Your task to perform on an android device: Go to calendar. Show me events next week Image 0: 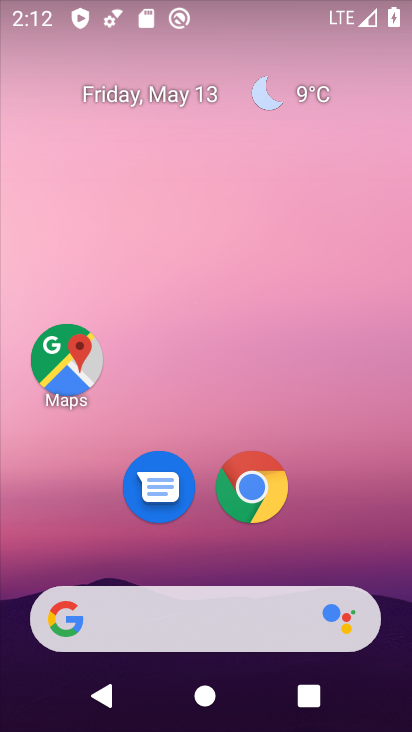
Step 0: drag from (197, 538) to (207, 177)
Your task to perform on an android device: Go to calendar. Show me events next week Image 1: 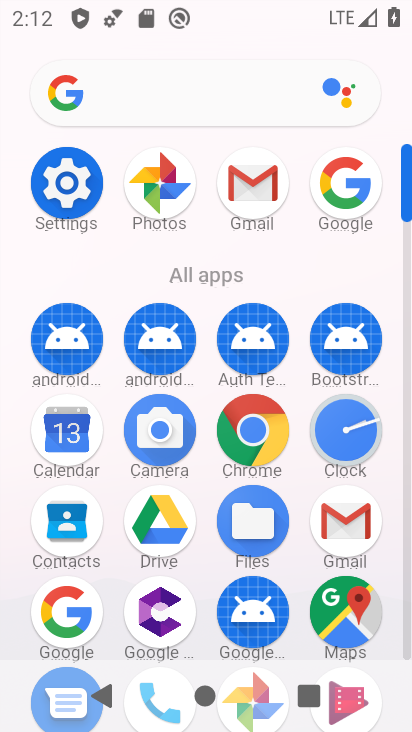
Step 1: click (65, 438)
Your task to perform on an android device: Go to calendar. Show me events next week Image 2: 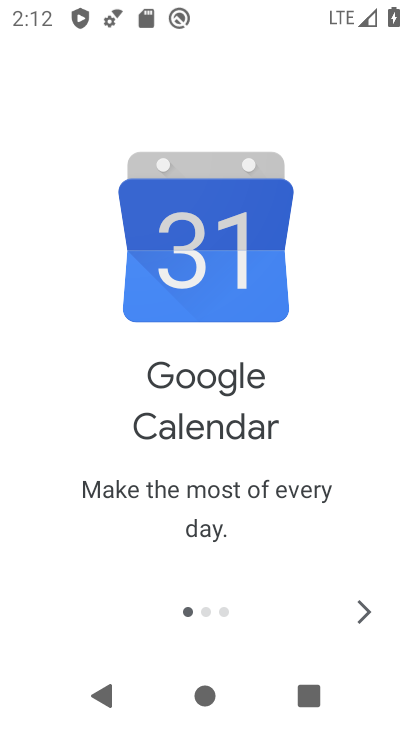
Step 2: click (347, 606)
Your task to perform on an android device: Go to calendar. Show me events next week Image 3: 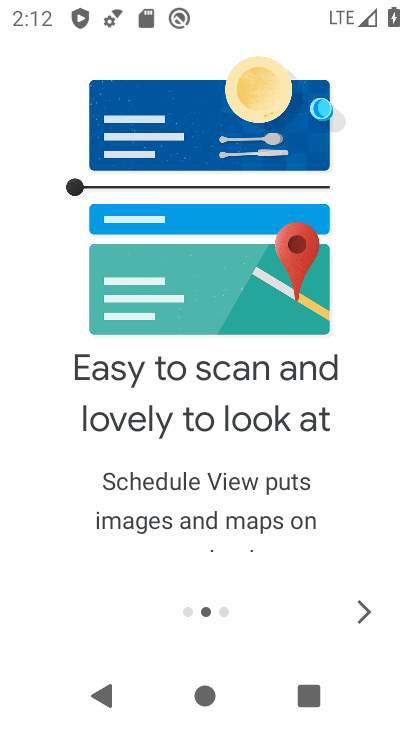
Step 3: click (347, 606)
Your task to perform on an android device: Go to calendar. Show me events next week Image 4: 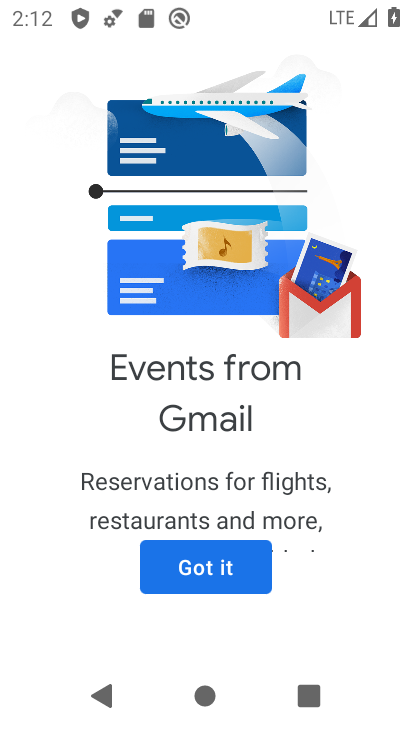
Step 4: click (204, 569)
Your task to perform on an android device: Go to calendar. Show me events next week Image 5: 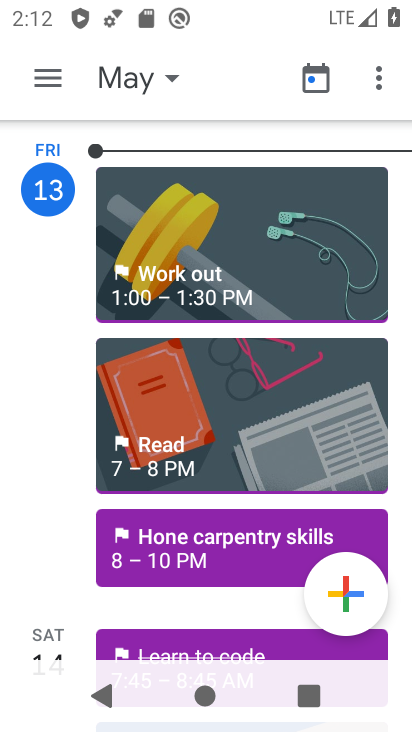
Step 5: click (158, 88)
Your task to perform on an android device: Go to calendar. Show me events next week Image 6: 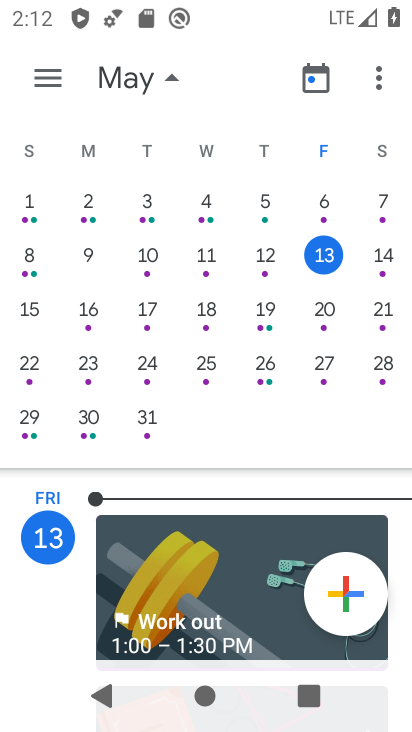
Step 6: click (362, 423)
Your task to perform on an android device: Go to calendar. Show me events next week Image 7: 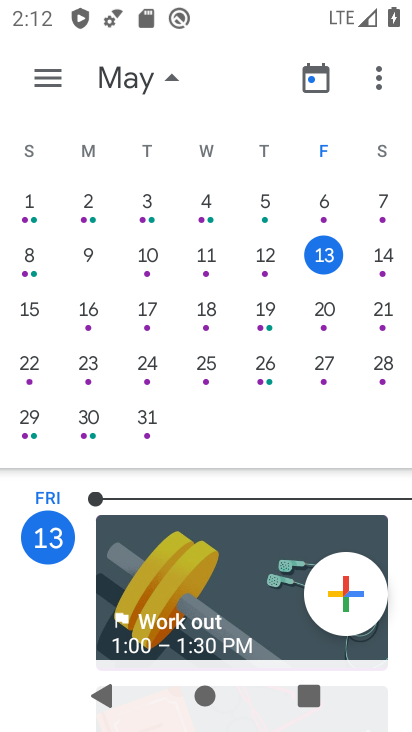
Step 7: click (325, 299)
Your task to perform on an android device: Go to calendar. Show me events next week Image 8: 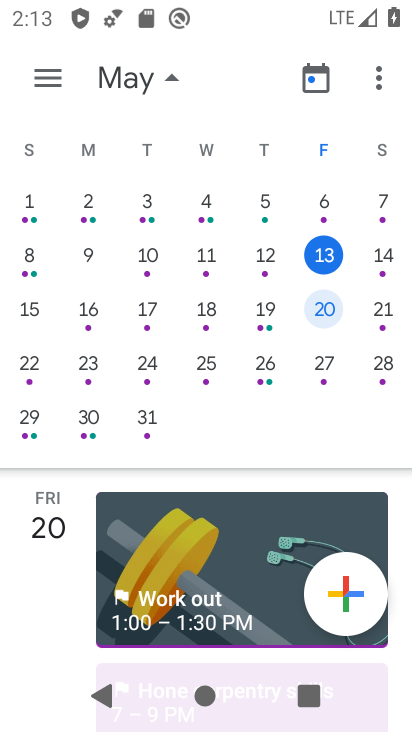
Step 8: task complete